Your task to perform on an android device: Go to wifi settings Image 0: 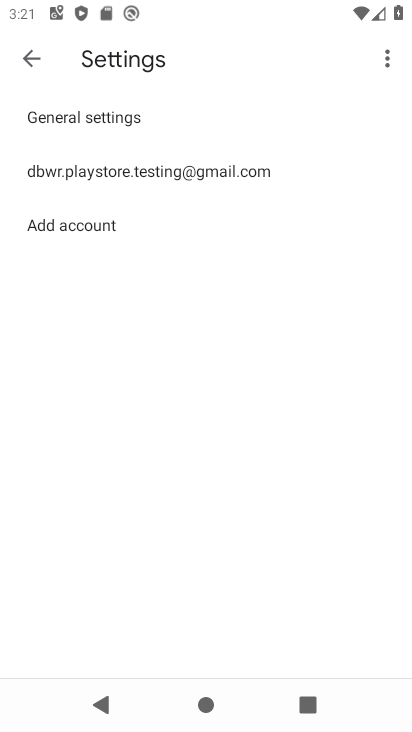
Step 0: press home button
Your task to perform on an android device: Go to wifi settings Image 1: 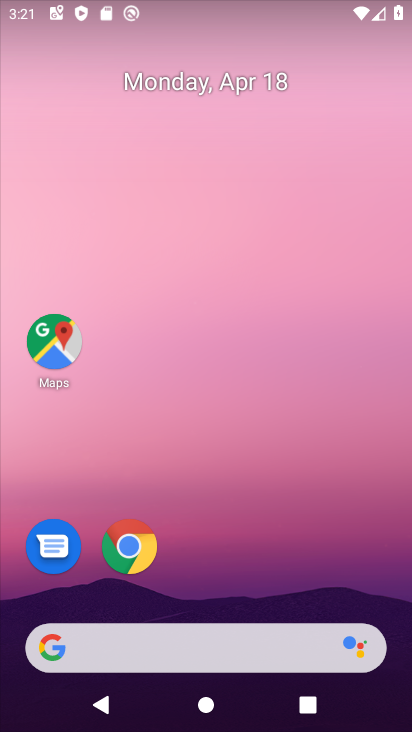
Step 1: drag from (274, 582) to (325, 80)
Your task to perform on an android device: Go to wifi settings Image 2: 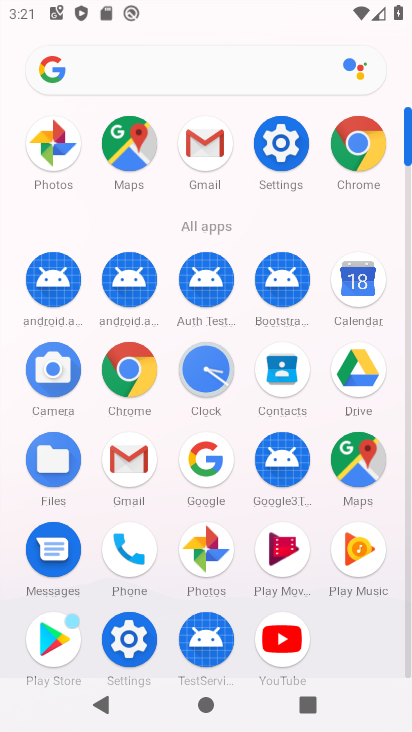
Step 2: click (281, 140)
Your task to perform on an android device: Go to wifi settings Image 3: 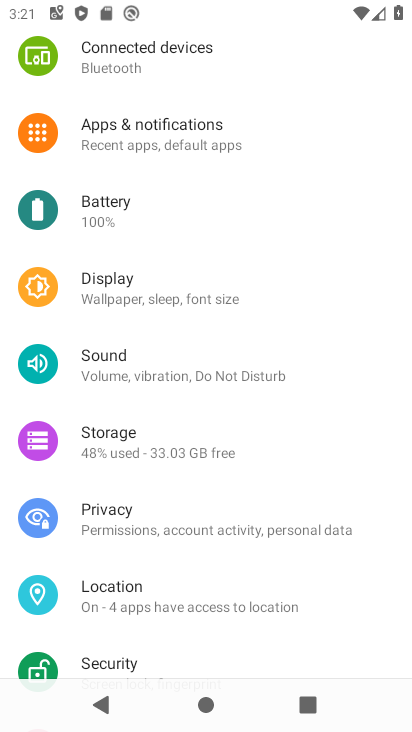
Step 3: drag from (212, 91) to (159, 576)
Your task to perform on an android device: Go to wifi settings Image 4: 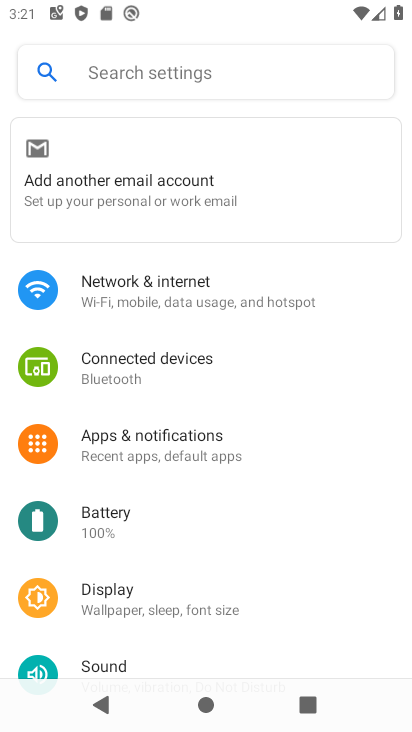
Step 4: click (158, 288)
Your task to perform on an android device: Go to wifi settings Image 5: 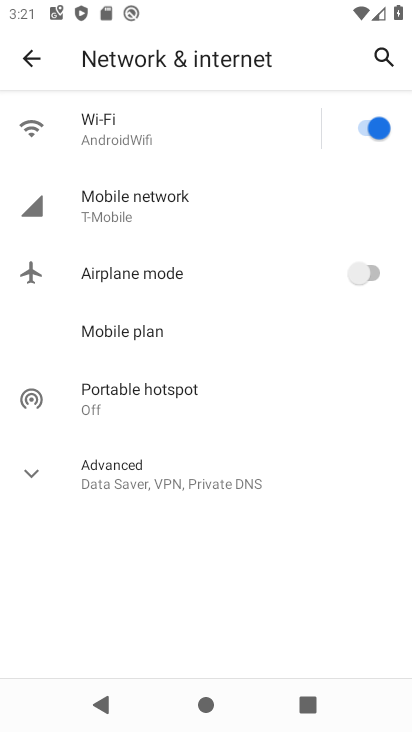
Step 5: click (209, 127)
Your task to perform on an android device: Go to wifi settings Image 6: 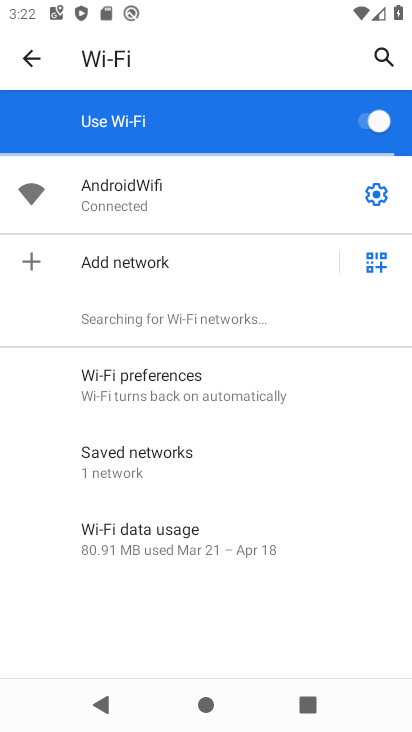
Step 6: click (375, 196)
Your task to perform on an android device: Go to wifi settings Image 7: 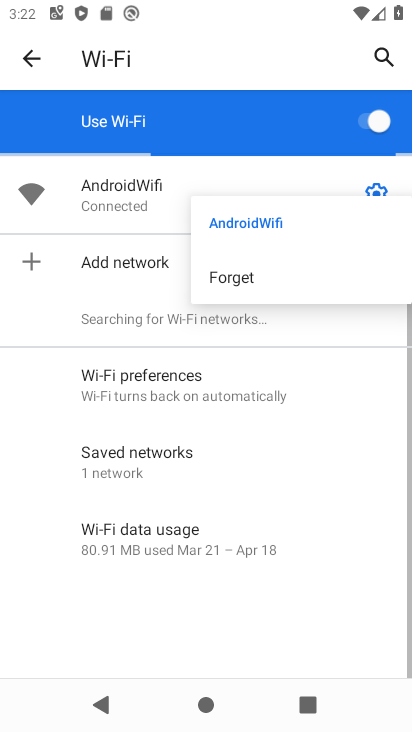
Step 7: click (376, 184)
Your task to perform on an android device: Go to wifi settings Image 8: 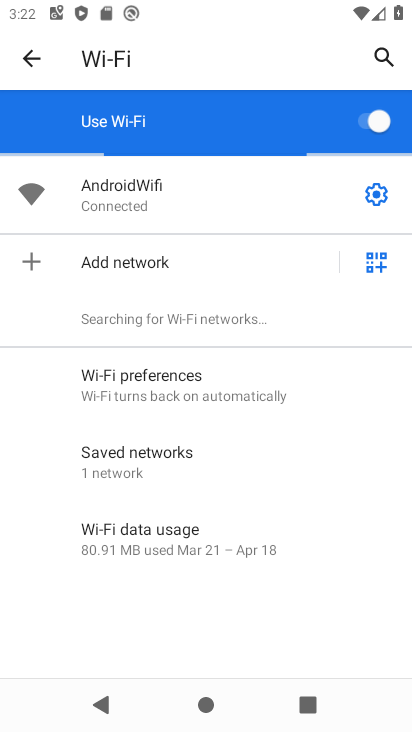
Step 8: click (371, 191)
Your task to perform on an android device: Go to wifi settings Image 9: 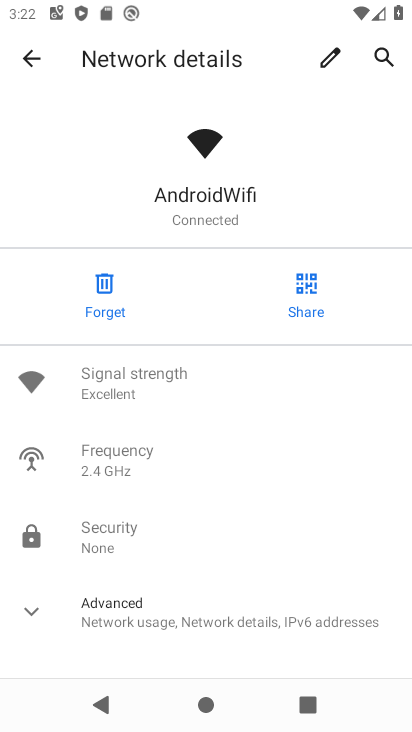
Step 9: task complete